Your task to perform on an android device: toggle notification dots Image 0: 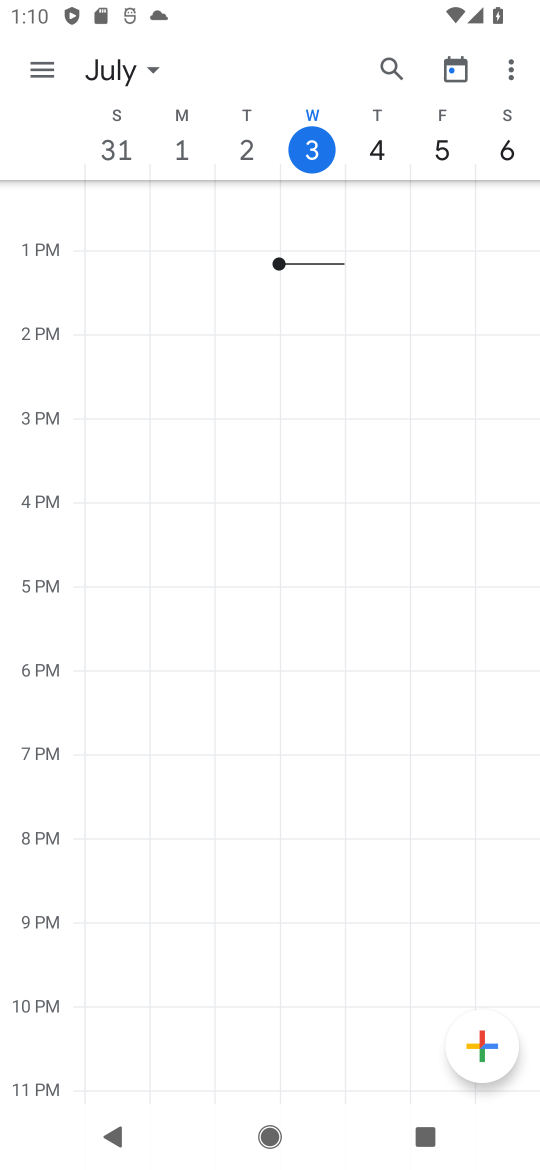
Step 0: press home button
Your task to perform on an android device: toggle notification dots Image 1: 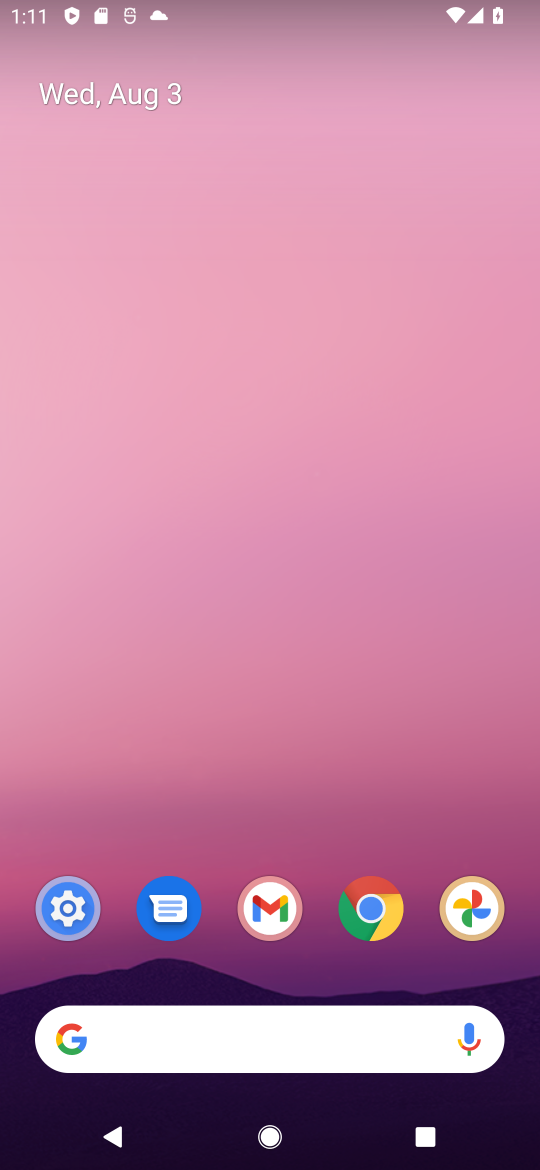
Step 1: click (57, 921)
Your task to perform on an android device: toggle notification dots Image 2: 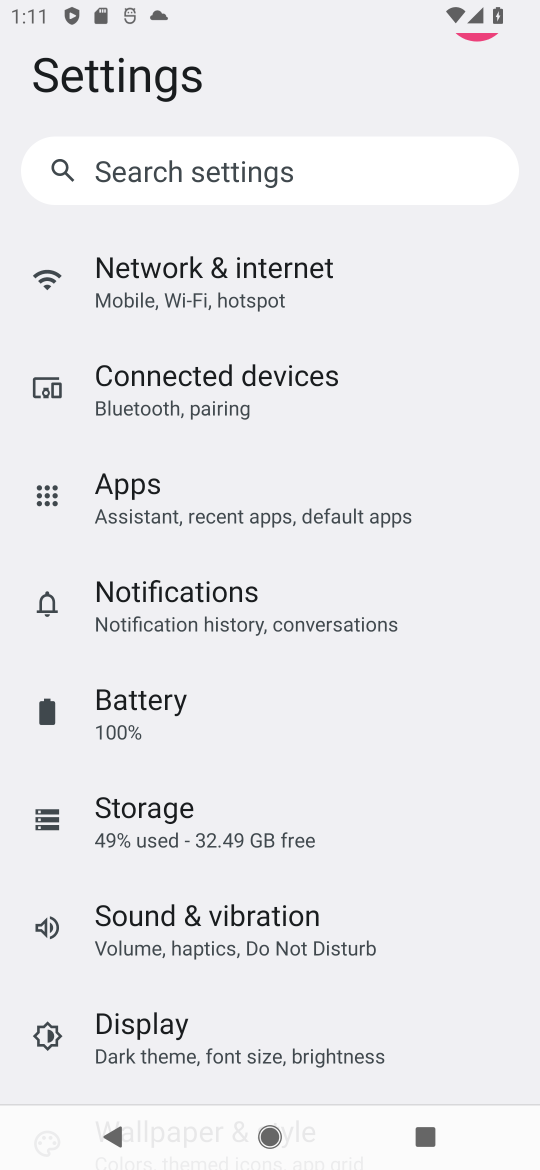
Step 2: click (279, 595)
Your task to perform on an android device: toggle notification dots Image 3: 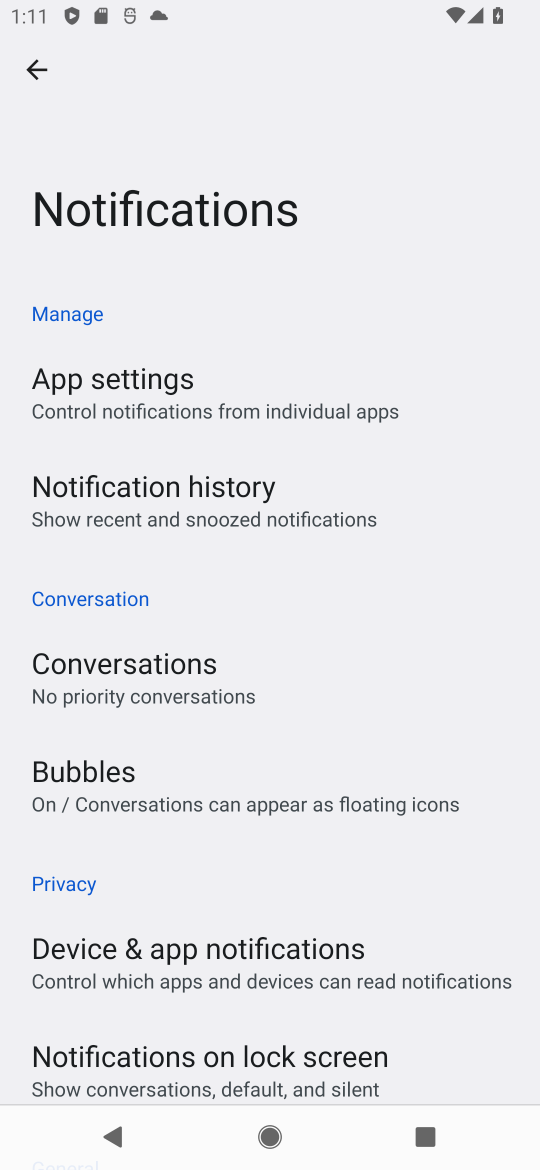
Step 3: task complete